Your task to perform on an android device: see creations saved in the google photos Image 0: 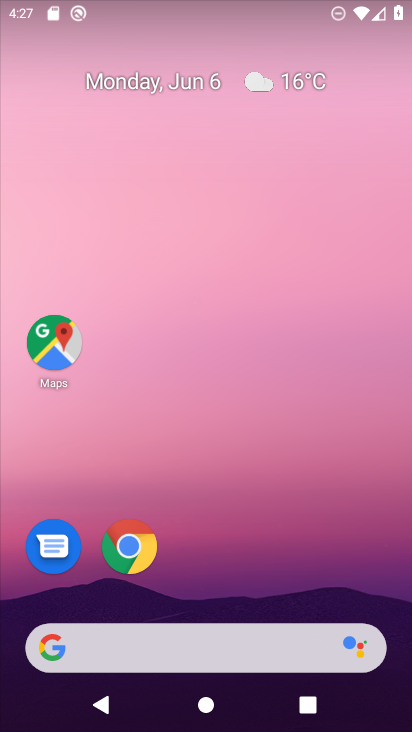
Step 0: drag from (236, 615) to (166, 10)
Your task to perform on an android device: see creations saved in the google photos Image 1: 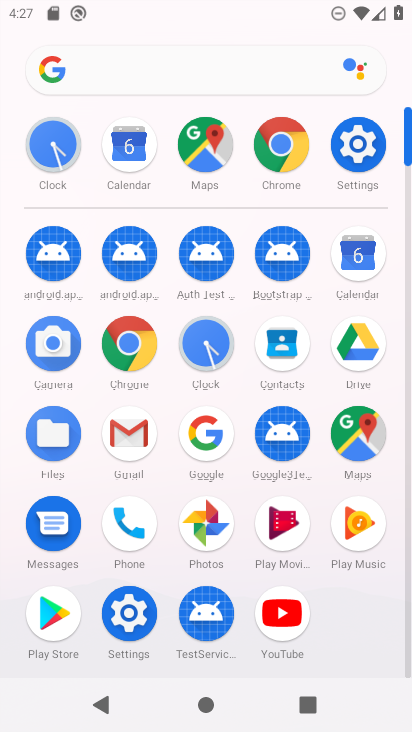
Step 1: click (227, 515)
Your task to perform on an android device: see creations saved in the google photos Image 2: 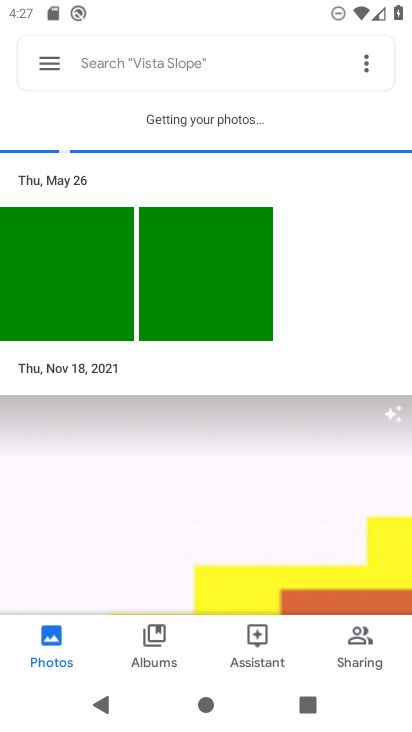
Step 2: click (201, 62)
Your task to perform on an android device: see creations saved in the google photos Image 3: 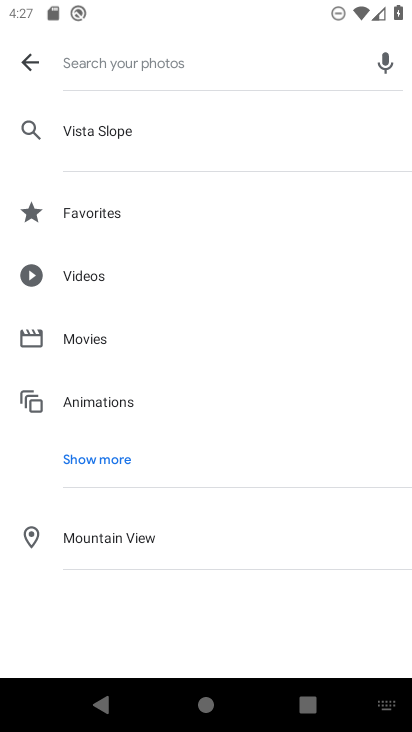
Step 3: click (67, 465)
Your task to perform on an android device: see creations saved in the google photos Image 4: 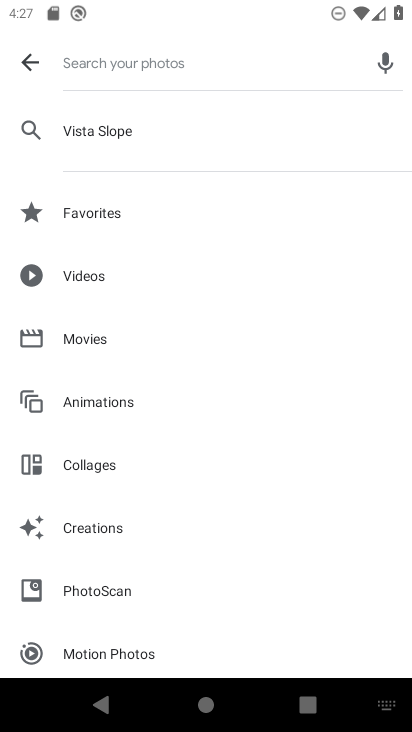
Step 4: drag from (104, 629) to (105, 241)
Your task to perform on an android device: see creations saved in the google photos Image 5: 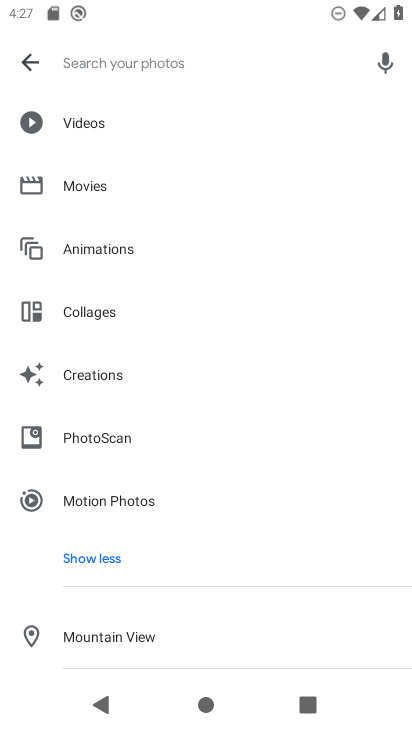
Step 5: click (74, 379)
Your task to perform on an android device: see creations saved in the google photos Image 6: 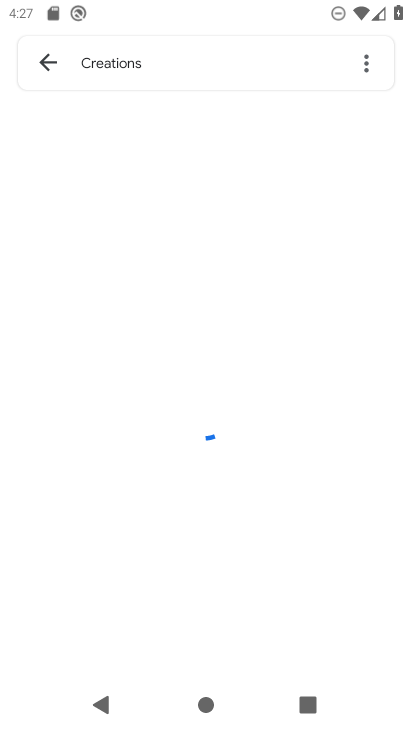
Step 6: task complete